Your task to perform on an android device: create a new album in the google photos Image 0: 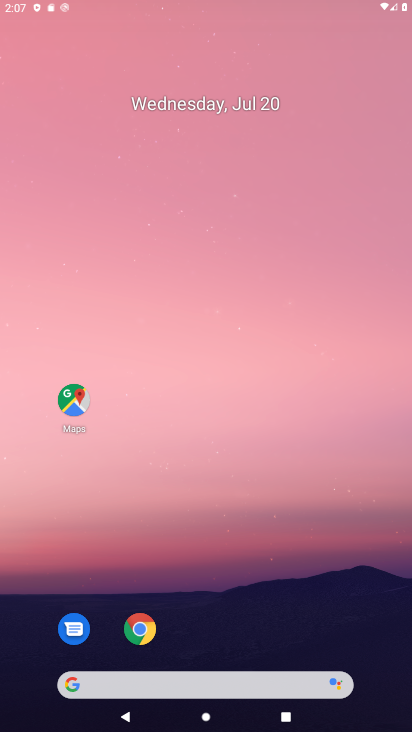
Step 0: drag from (188, 682) to (181, 141)
Your task to perform on an android device: create a new album in the google photos Image 1: 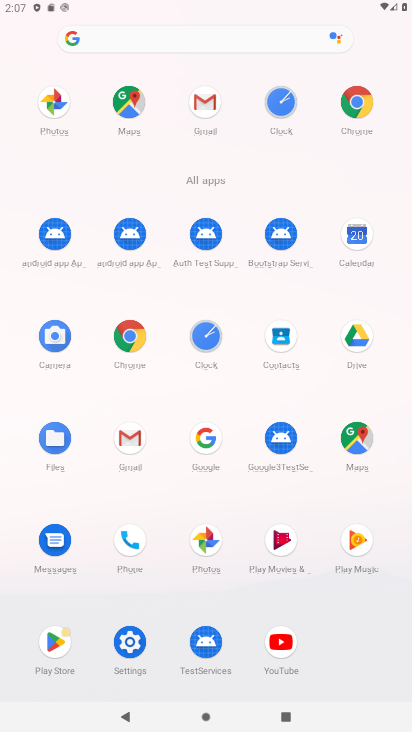
Step 1: click (214, 551)
Your task to perform on an android device: create a new album in the google photos Image 2: 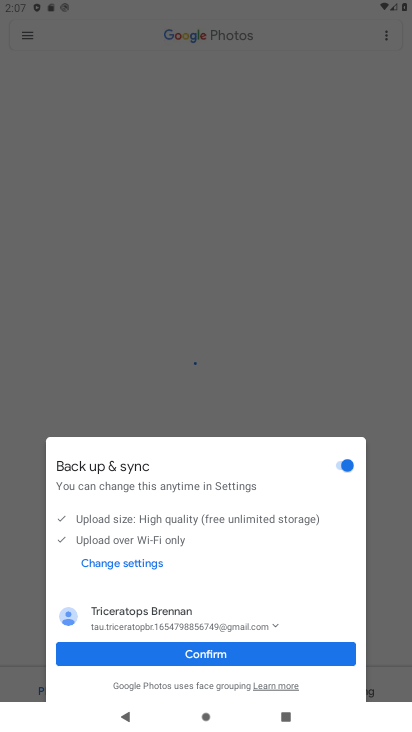
Step 2: click (197, 647)
Your task to perform on an android device: create a new album in the google photos Image 3: 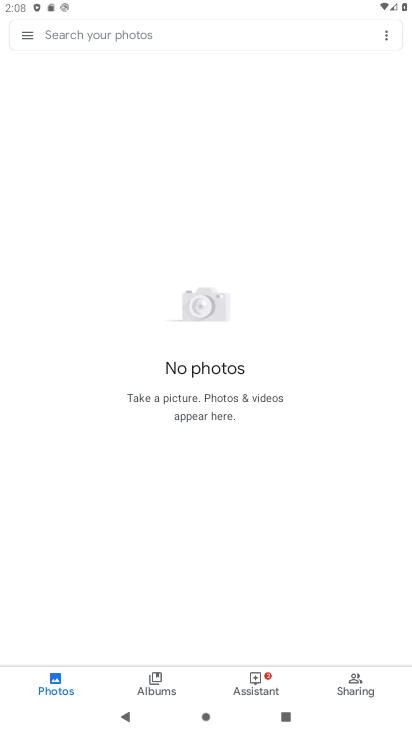
Step 3: click (252, 687)
Your task to perform on an android device: create a new album in the google photos Image 4: 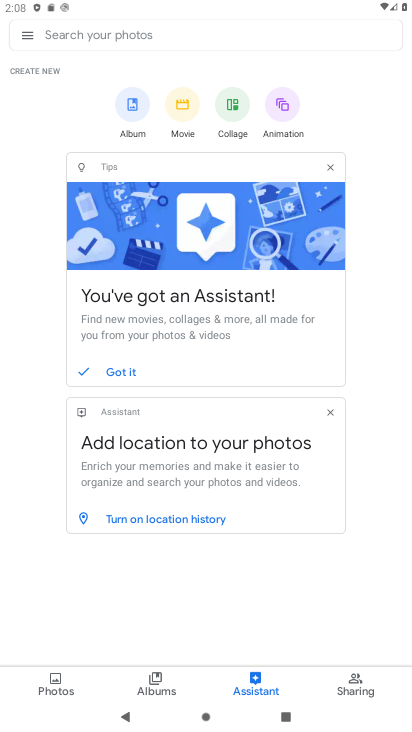
Step 4: click (131, 116)
Your task to perform on an android device: create a new album in the google photos Image 5: 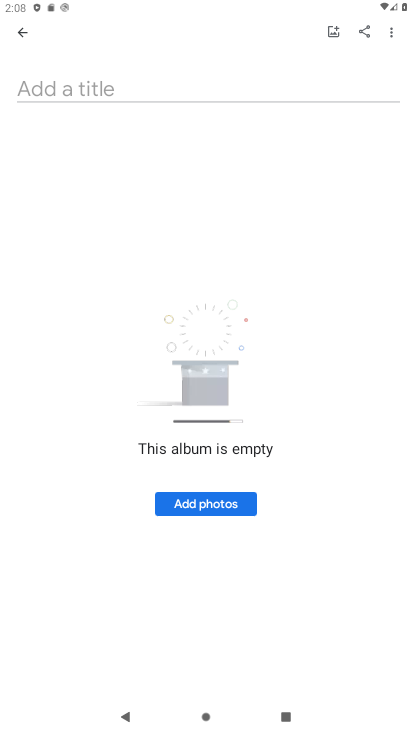
Step 5: click (163, 84)
Your task to perform on an android device: create a new album in the google photos Image 6: 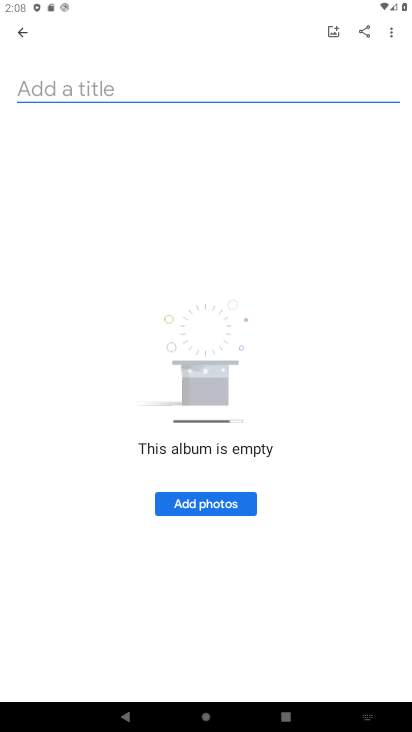
Step 6: type "djfgvvdf"
Your task to perform on an android device: create a new album in the google photos Image 7: 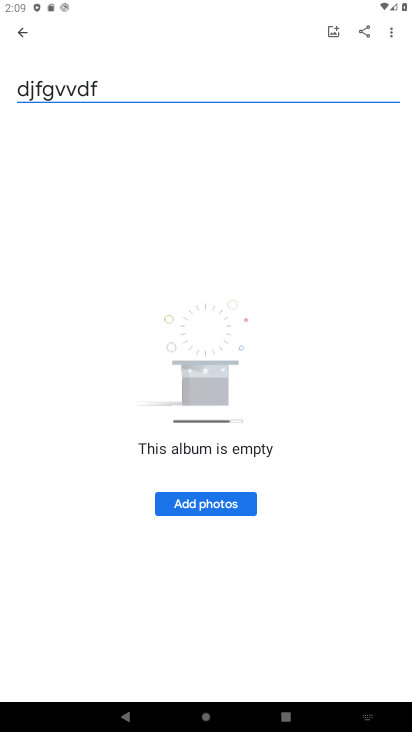
Step 7: click (221, 495)
Your task to perform on an android device: create a new album in the google photos Image 8: 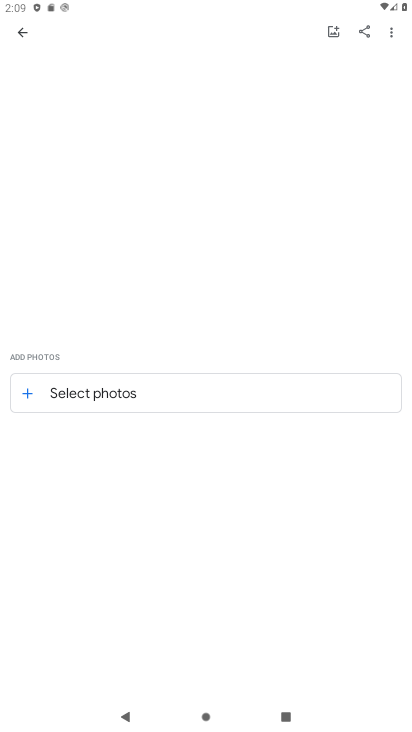
Step 8: click (141, 395)
Your task to perform on an android device: create a new album in the google photos Image 9: 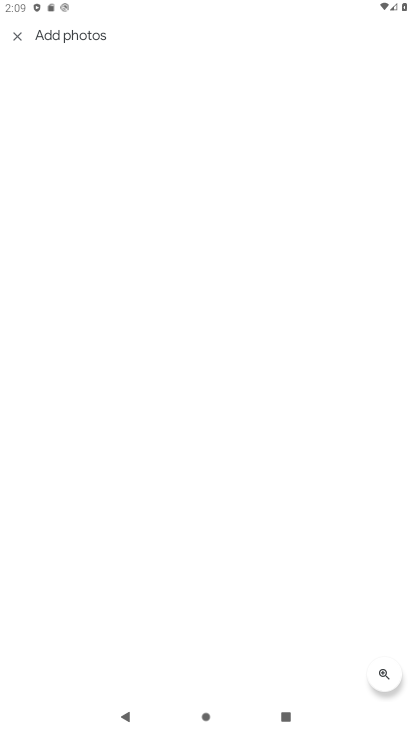
Step 9: task complete